Your task to perform on an android device: see tabs open on other devices in the chrome app Image 0: 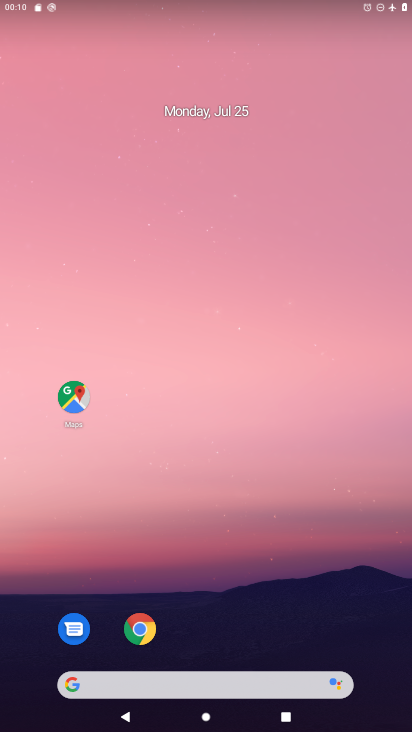
Step 0: click (190, 395)
Your task to perform on an android device: see tabs open on other devices in the chrome app Image 1: 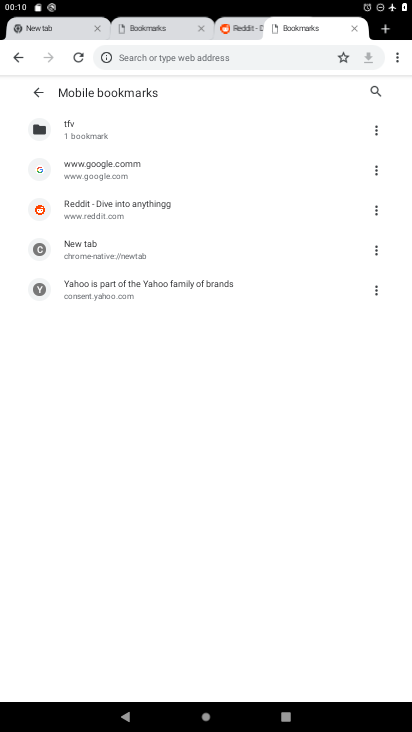
Step 1: task complete